Your task to perform on an android device: Open Google Maps Image 0: 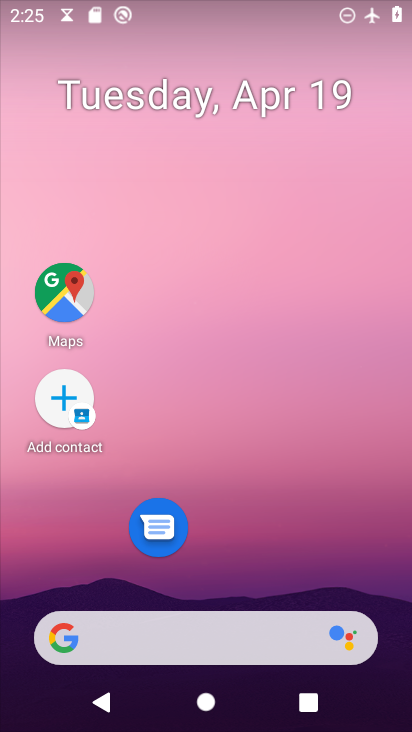
Step 0: click (61, 293)
Your task to perform on an android device: Open Google Maps Image 1: 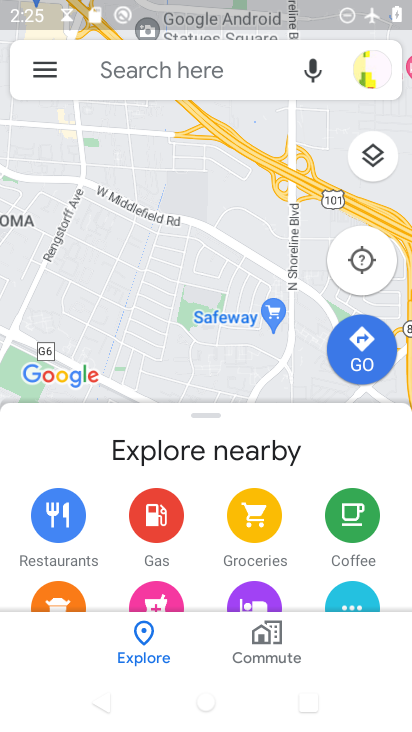
Step 1: task complete